Your task to perform on an android device: Open the calendar app, open the side menu, and click the "Day" option Image 0: 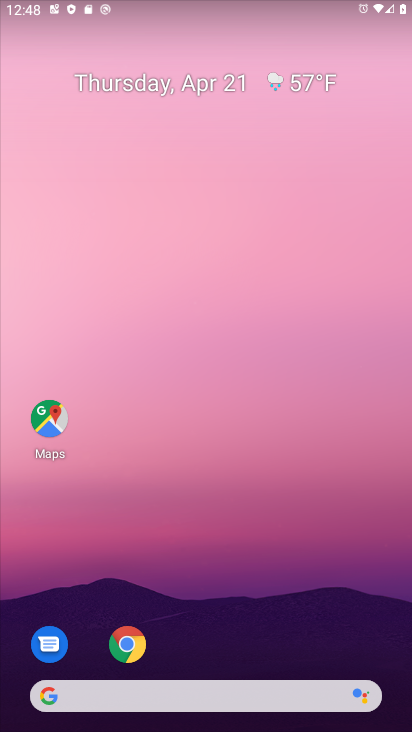
Step 0: drag from (217, 685) to (174, 34)
Your task to perform on an android device: Open the calendar app, open the side menu, and click the "Day" option Image 1: 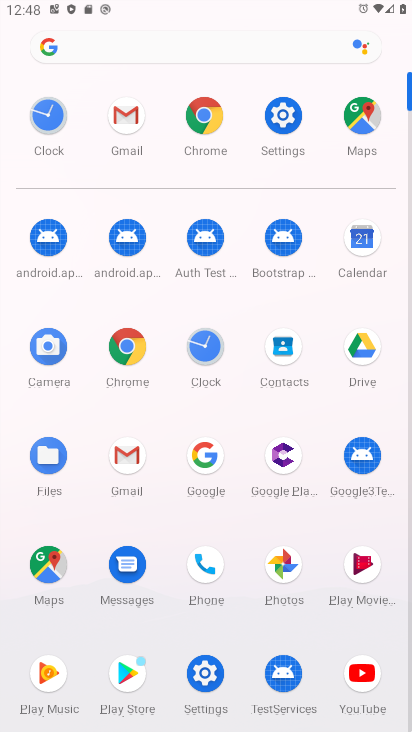
Step 1: click (351, 241)
Your task to perform on an android device: Open the calendar app, open the side menu, and click the "Day" option Image 2: 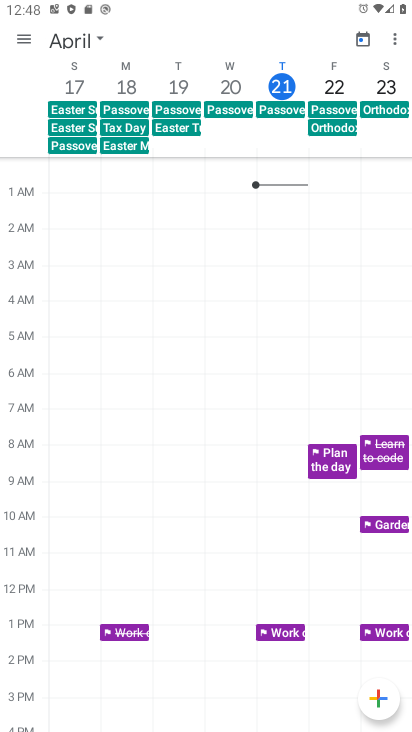
Step 2: click (24, 36)
Your task to perform on an android device: Open the calendar app, open the side menu, and click the "Day" option Image 3: 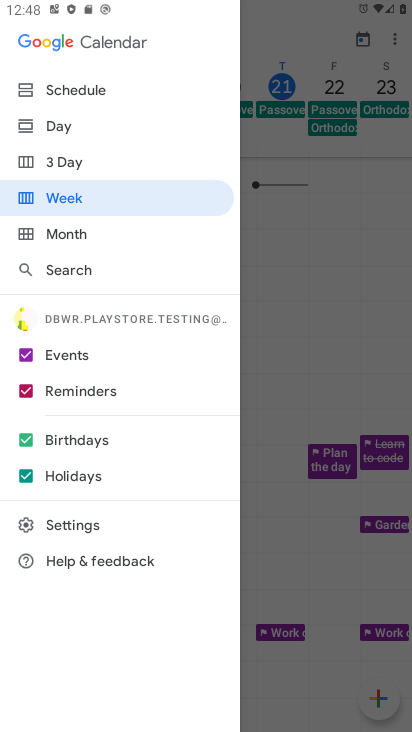
Step 3: click (66, 134)
Your task to perform on an android device: Open the calendar app, open the side menu, and click the "Day" option Image 4: 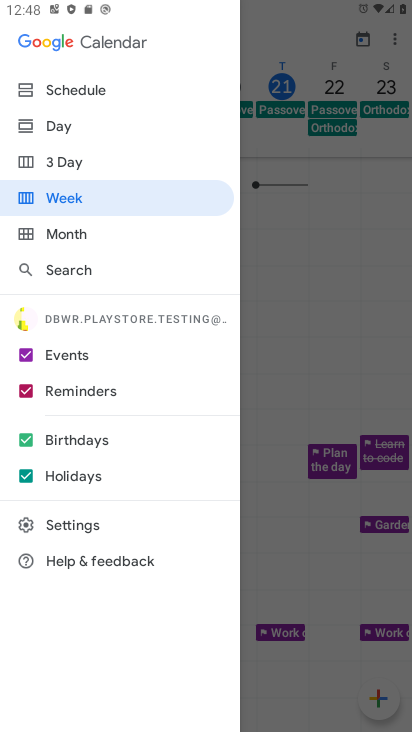
Step 4: click (62, 120)
Your task to perform on an android device: Open the calendar app, open the side menu, and click the "Day" option Image 5: 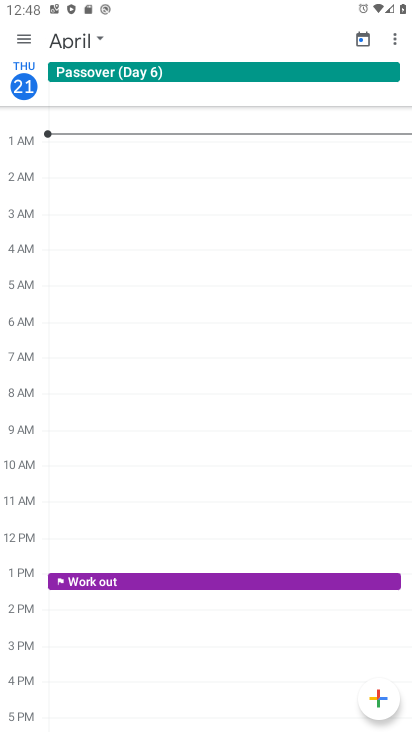
Step 5: task complete